Your task to perform on an android device: make emails show in primary in the gmail app Image 0: 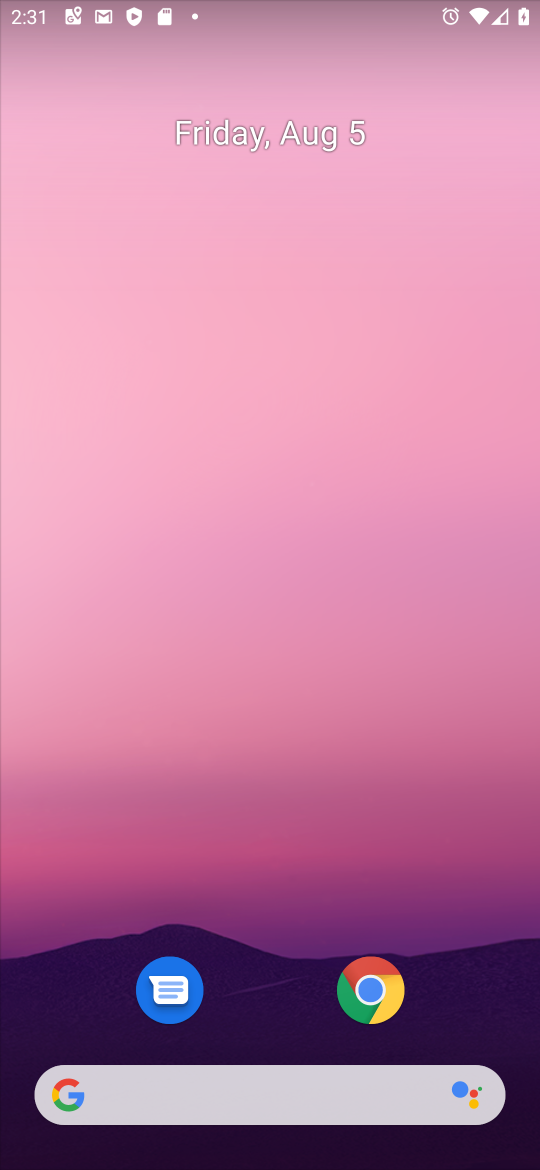
Step 0: drag from (286, 1106) to (394, 176)
Your task to perform on an android device: make emails show in primary in the gmail app Image 1: 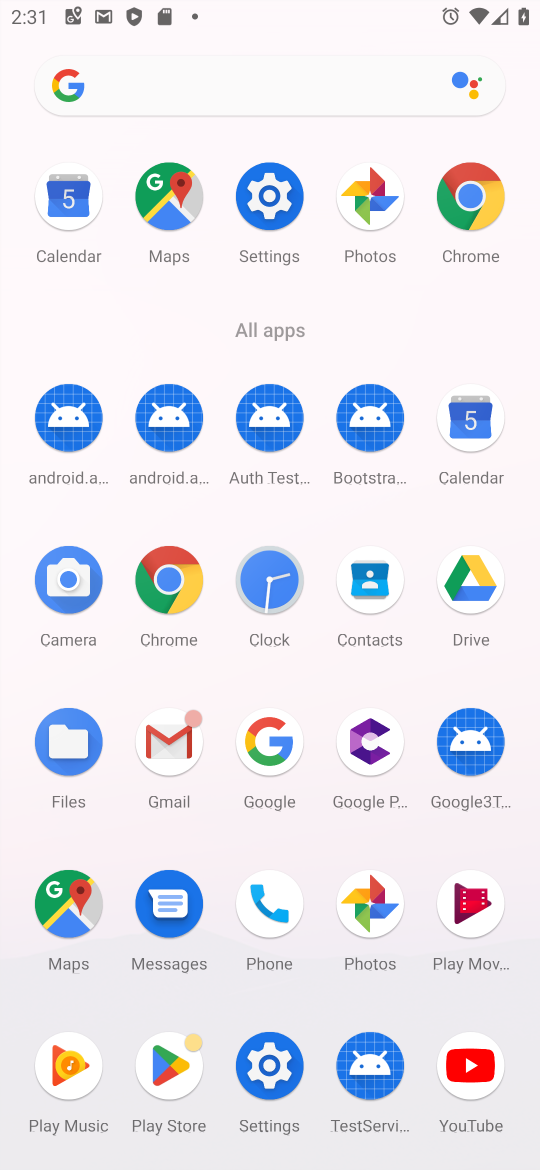
Step 1: click (182, 736)
Your task to perform on an android device: make emails show in primary in the gmail app Image 2: 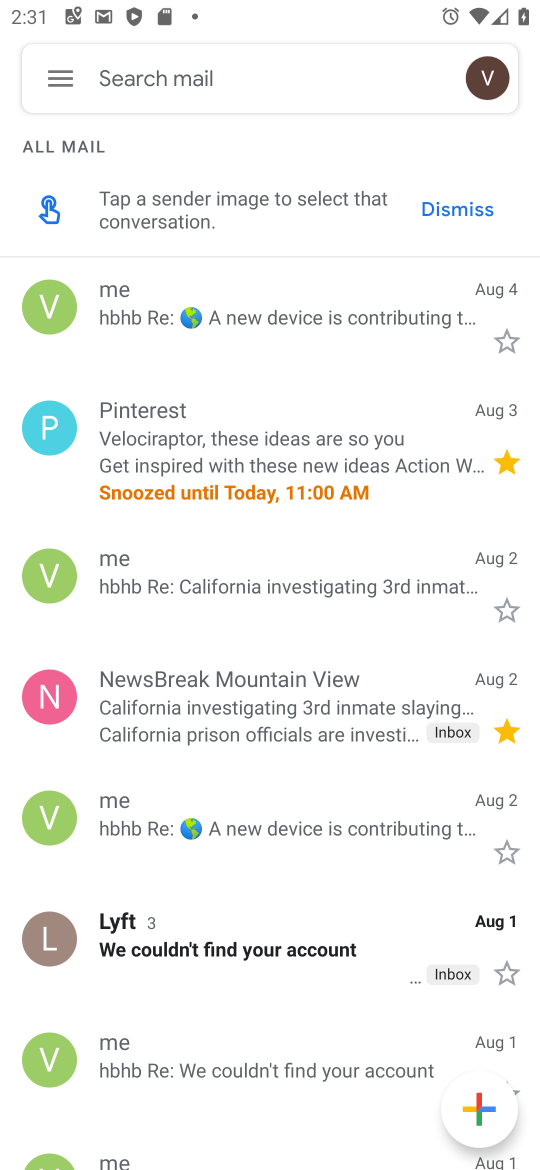
Step 2: click (58, 91)
Your task to perform on an android device: make emails show in primary in the gmail app Image 3: 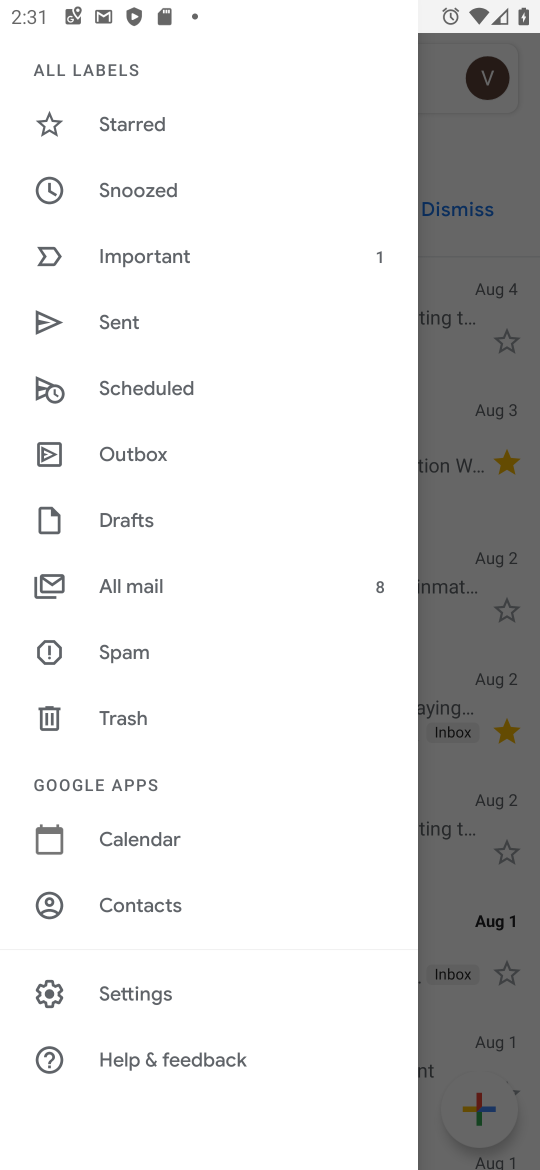
Step 3: click (199, 1003)
Your task to perform on an android device: make emails show in primary in the gmail app Image 4: 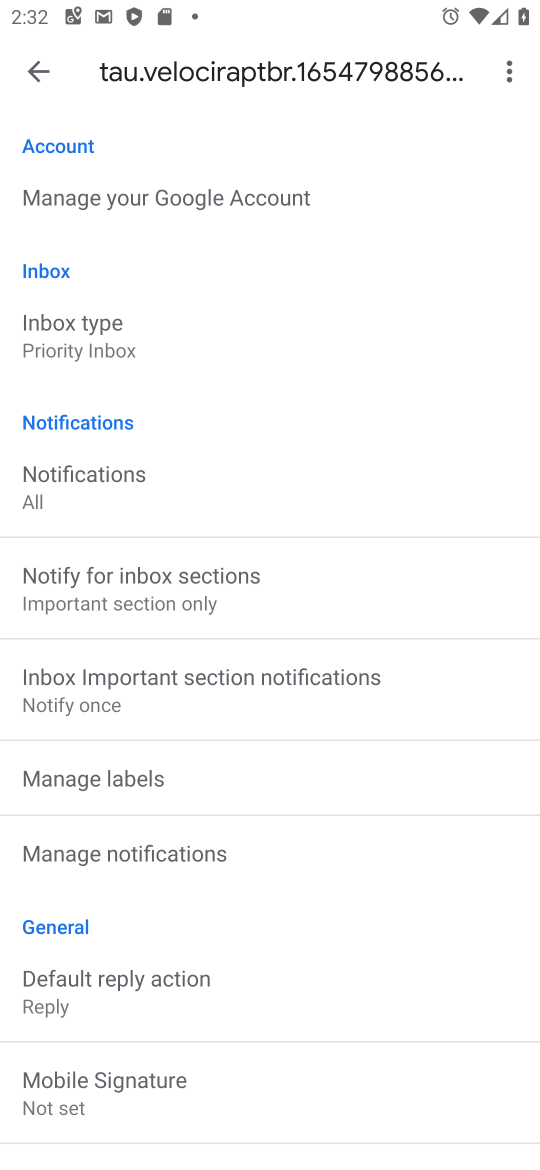
Step 4: click (104, 346)
Your task to perform on an android device: make emails show in primary in the gmail app Image 5: 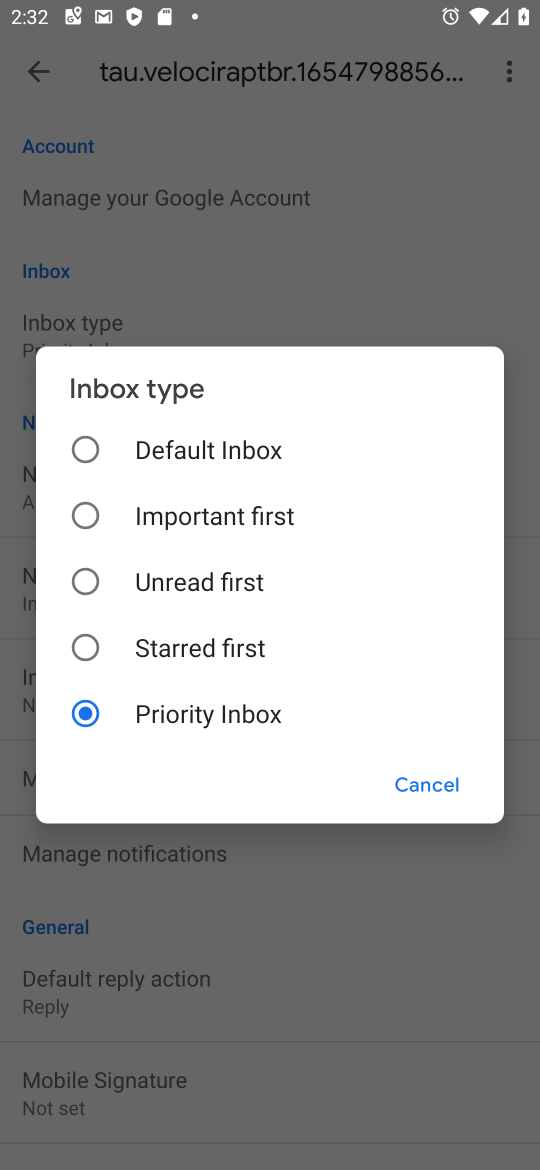
Step 5: click (133, 436)
Your task to perform on an android device: make emails show in primary in the gmail app Image 6: 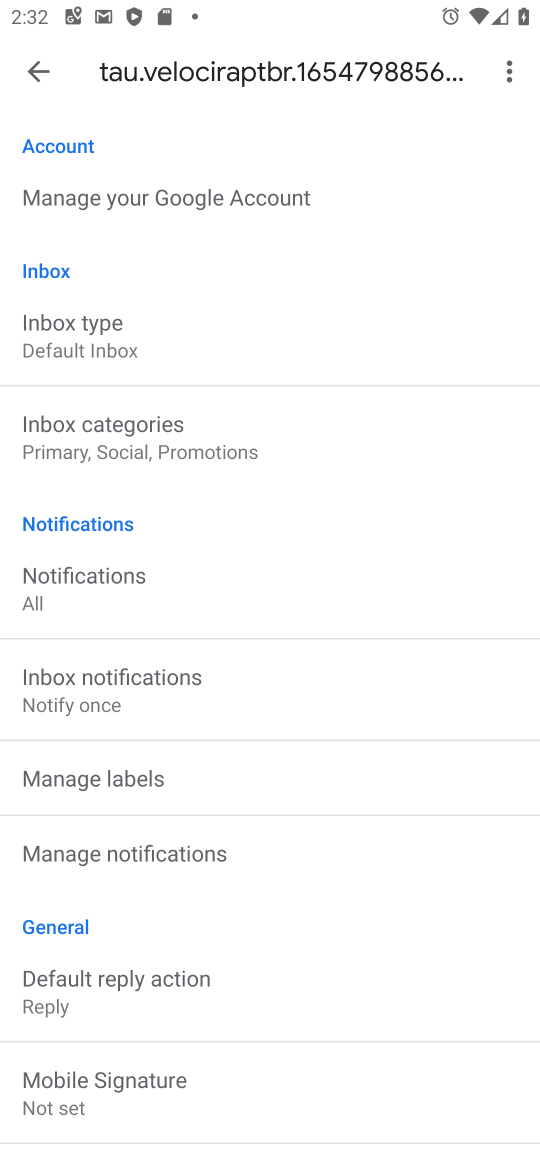
Step 6: click (140, 453)
Your task to perform on an android device: make emails show in primary in the gmail app Image 7: 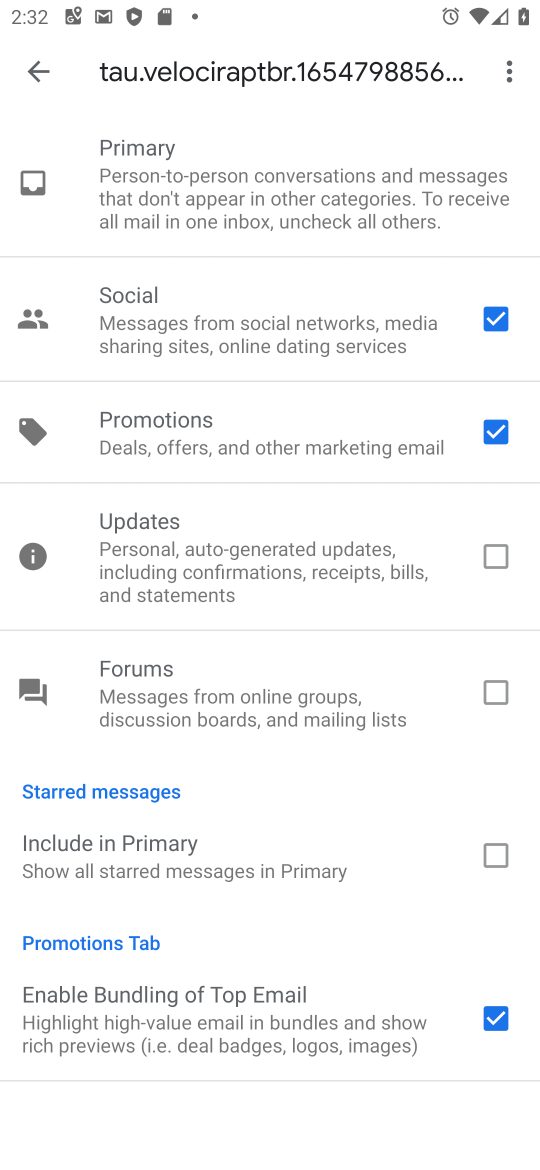
Step 7: click (470, 445)
Your task to perform on an android device: make emails show in primary in the gmail app Image 8: 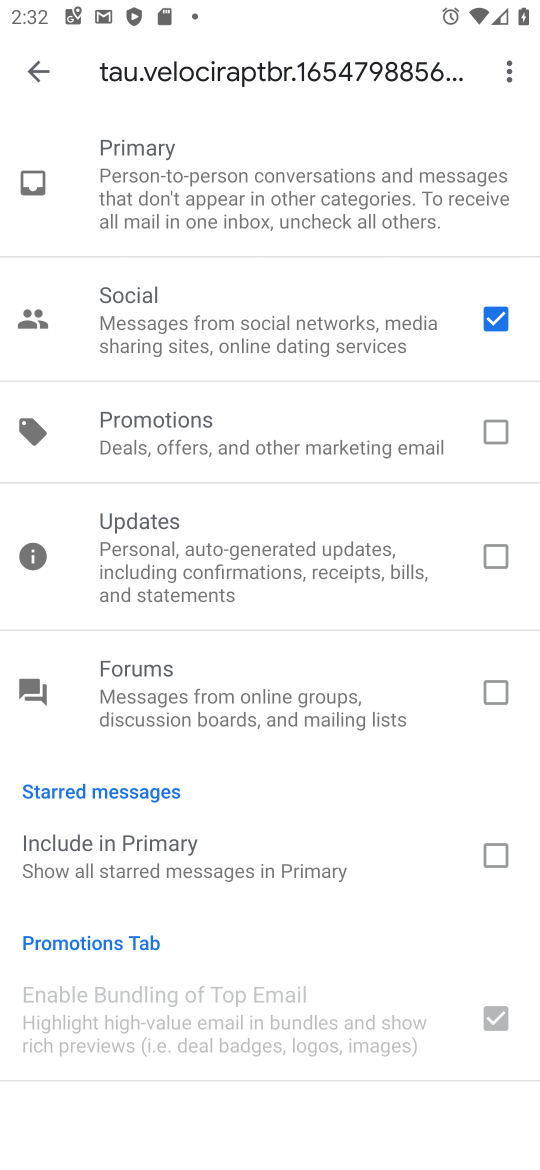
Step 8: click (491, 337)
Your task to perform on an android device: make emails show in primary in the gmail app Image 9: 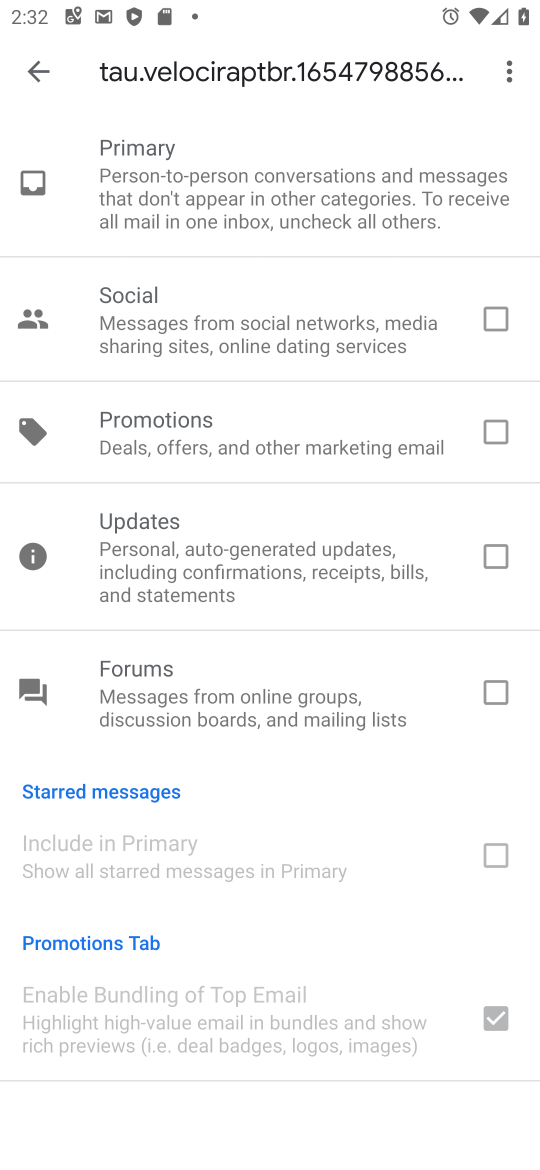
Step 9: task complete